Your task to perform on an android device: Turn off the flashlight Image 0: 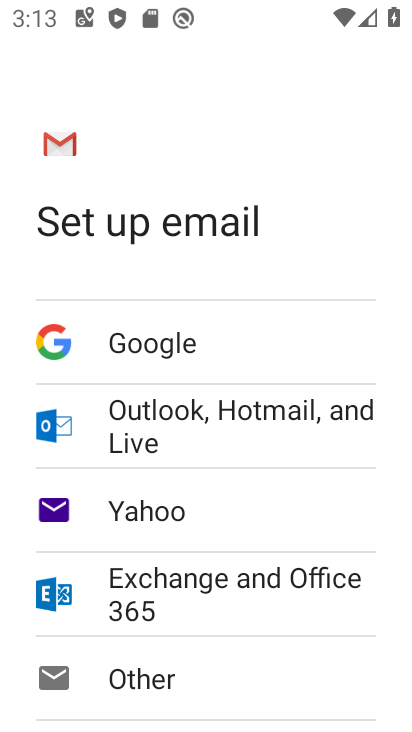
Step 0: press home button
Your task to perform on an android device: Turn off the flashlight Image 1: 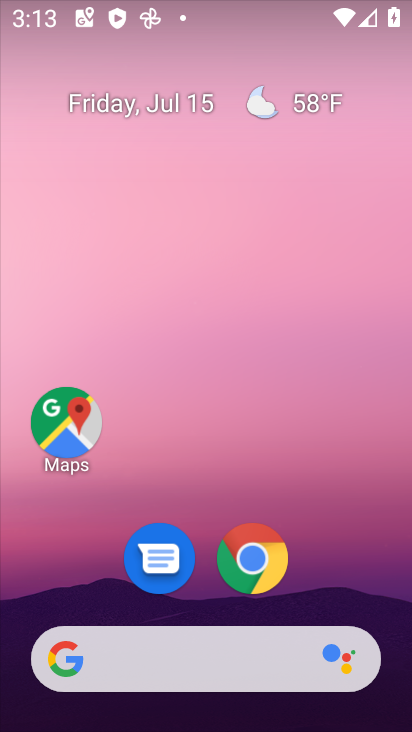
Step 1: drag from (244, 4) to (245, 387)
Your task to perform on an android device: Turn off the flashlight Image 2: 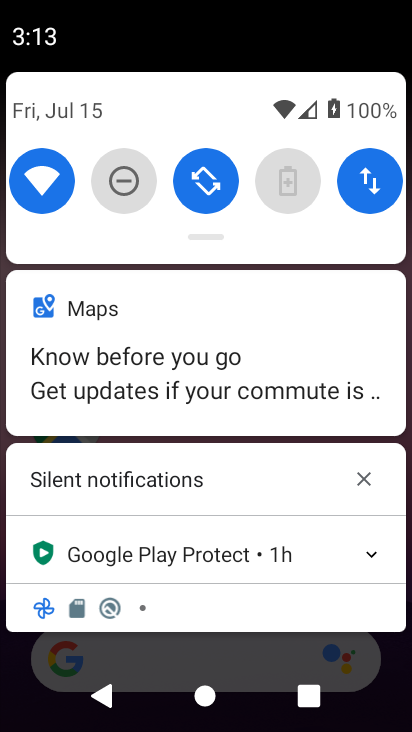
Step 2: drag from (242, 109) to (239, 381)
Your task to perform on an android device: Turn off the flashlight Image 3: 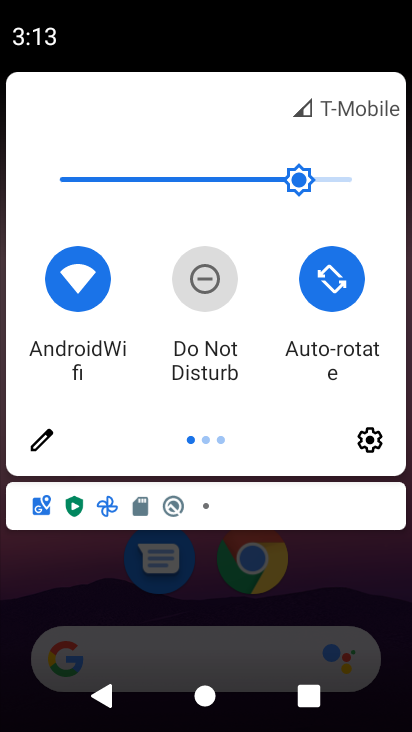
Step 3: click (38, 446)
Your task to perform on an android device: Turn off the flashlight Image 4: 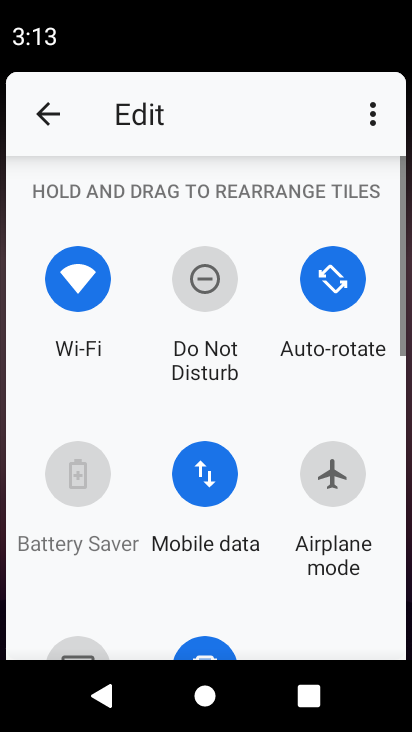
Step 4: task complete